Your task to perform on an android device: Go to network settings Image 0: 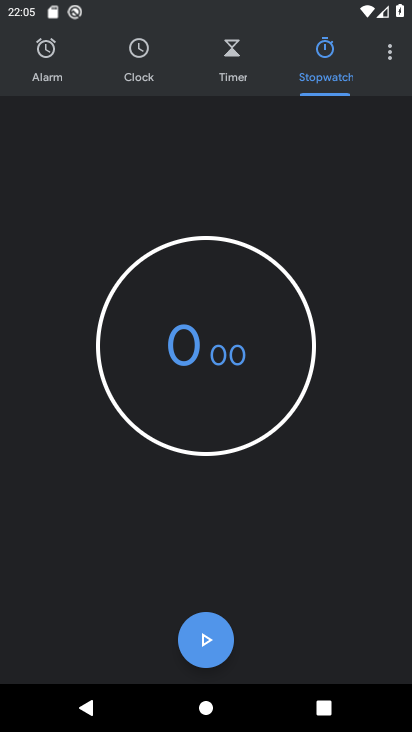
Step 0: press home button
Your task to perform on an android device: Go to network settings Image 1: 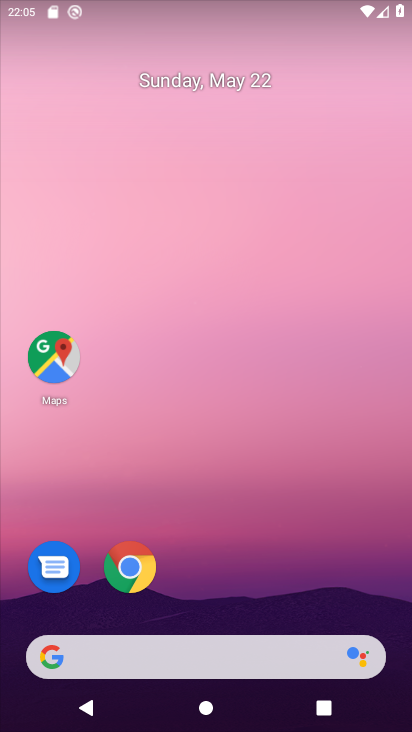
Step 1: drag from (214, 612) to (234, 139)
Your task to perform on an android device: Go to network settings Image 2: 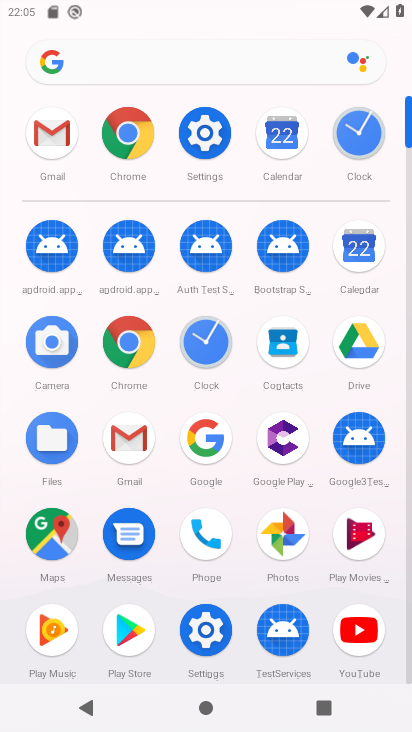
Step 2: click (201, 126)
Your task to perform on an android device: Go to network settings Image 3: 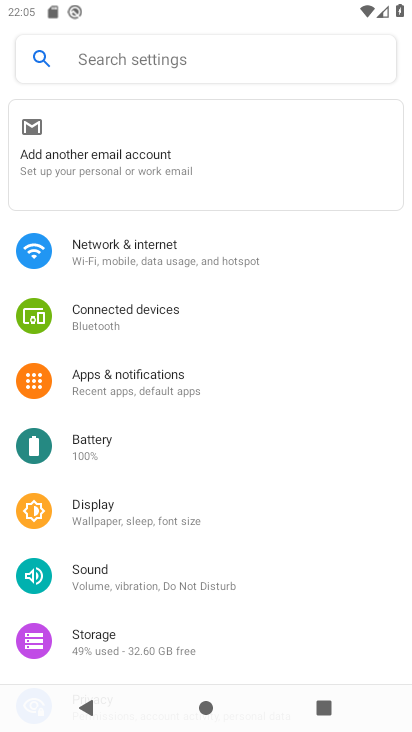
Step 3: click (191, 244)
Your task to perform on an android device: Go to network settings Image 4: 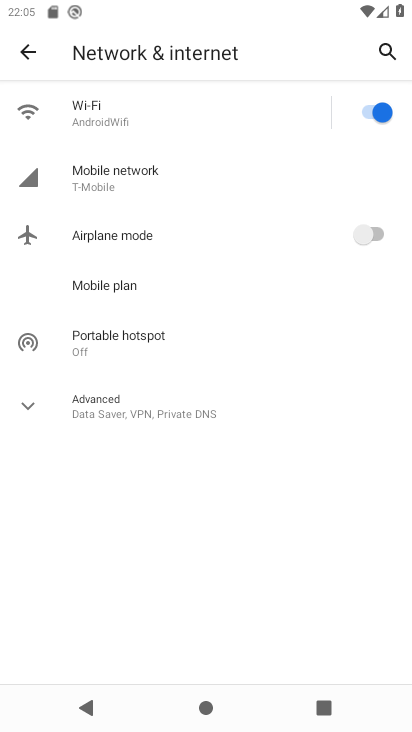
Step 4: click (28, 398)
Your task to perform on an android device: Go to network settings Image 5: 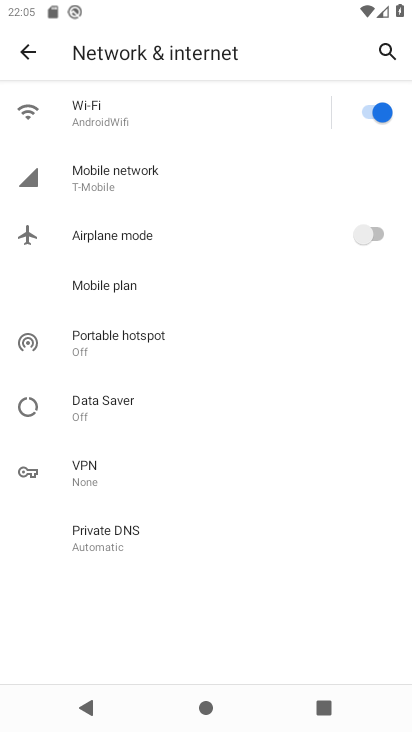
Step 5: task complete